Your task to perform on an android device: Open CNN.com Image 0: 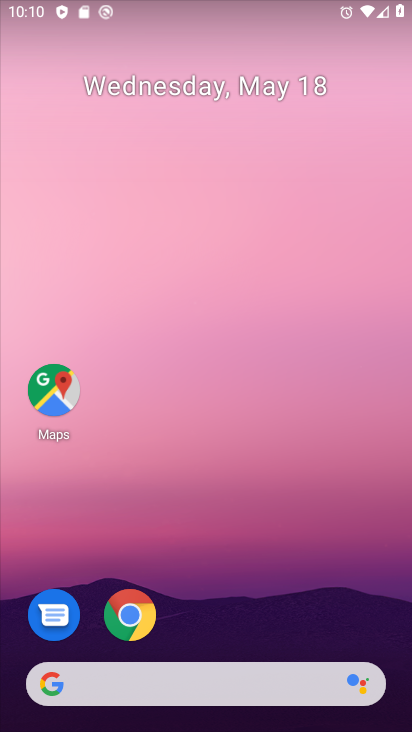
Step 0: drag from (157, 668) to (299, 58)
Your task to perform on an android device: Open CNN.com Image 1: 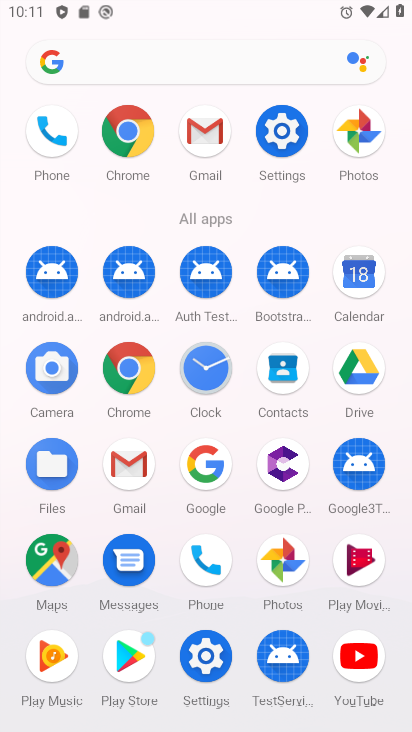
Step 1: click (229, 478)
Your task to perform on an android device: Open CNN.com Image 2: 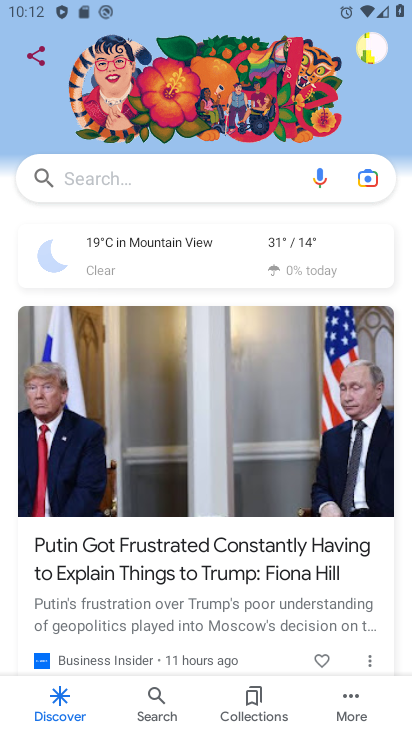
Step 2: click (195, 192)
Your task to perform on an android device: Open CNN.com Image 3: 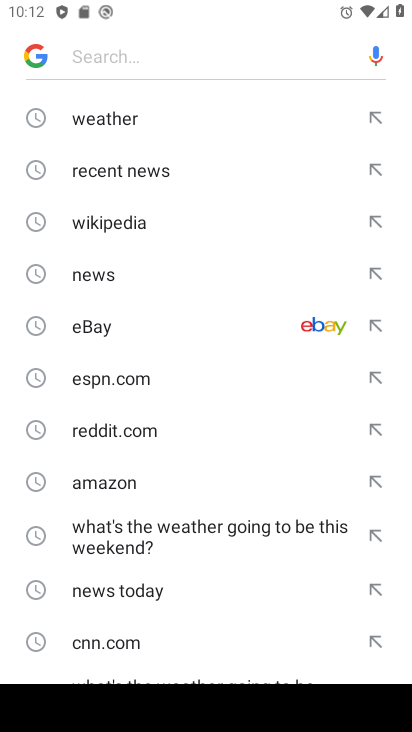
Step 3: click (125, 648)
Your task to perform on an android device: Open CNN.com Image 4: 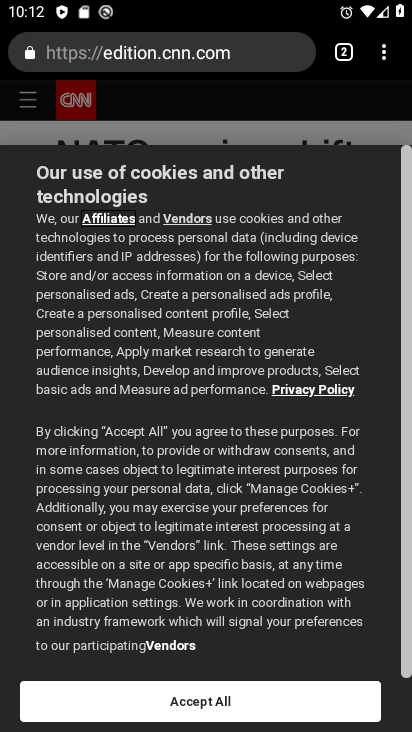
Step 4: task complete